Your task to perform on an android device: Open the web browser Image 0: 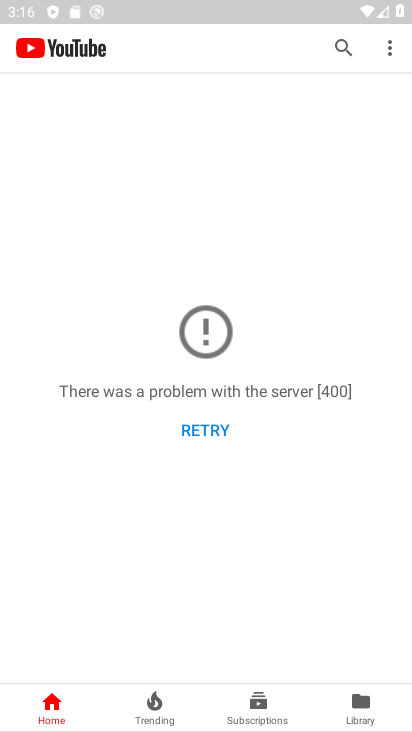
Step 0: press back button
Your task to perform on an android device: Open the web browser Image 1: 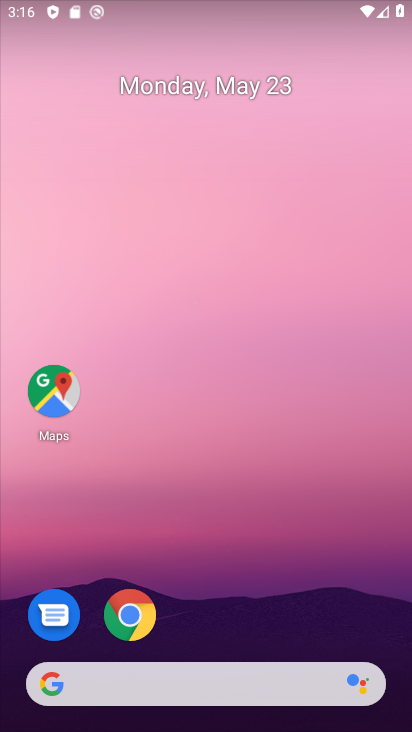
Step 1: drag from (249, 596) to (244, 26)
Your task to perform on an android device: Open the web browser Image 2: 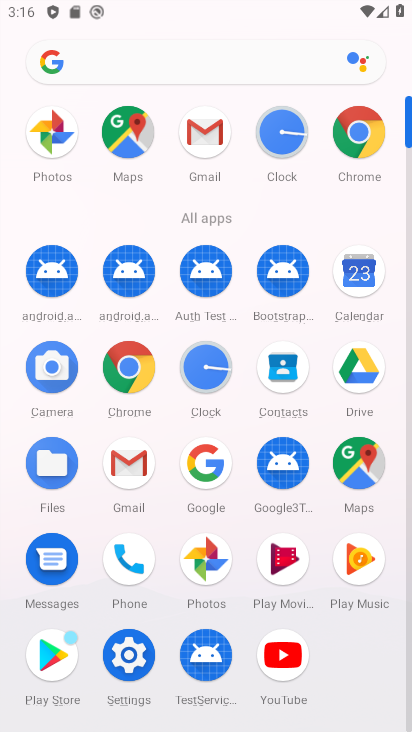
Step 2: drag from (10, 589) to (5, 263)
Your task to perform on an android device: Open the web browser Image 3: 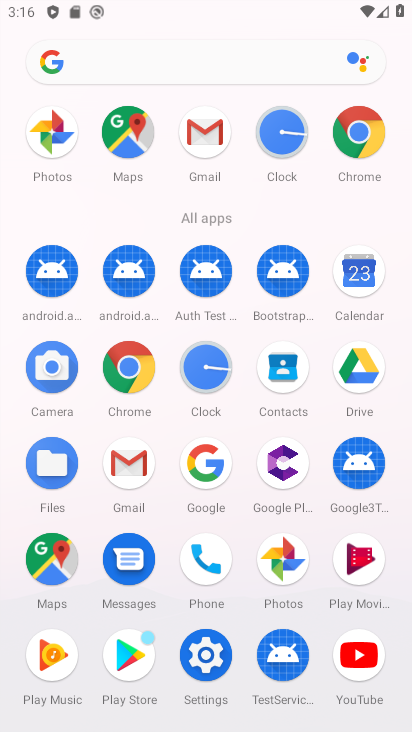
Step 3: click (123, 363)
Your task to perform on an android device: Open the web browser Image 4: 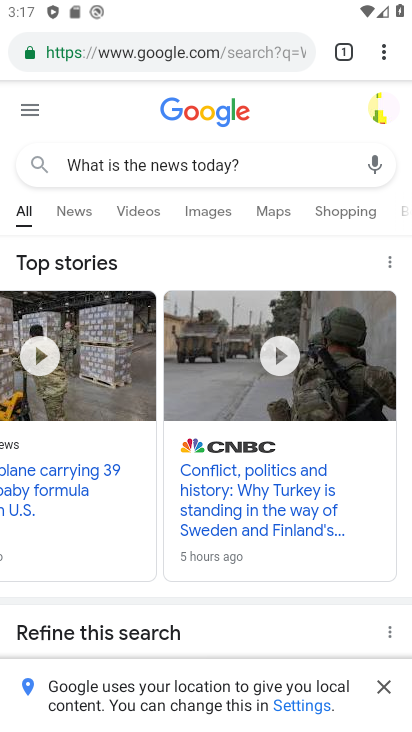
Step 4: task complete